Your task to perform on an android device: Open accessibility settings Image 0: 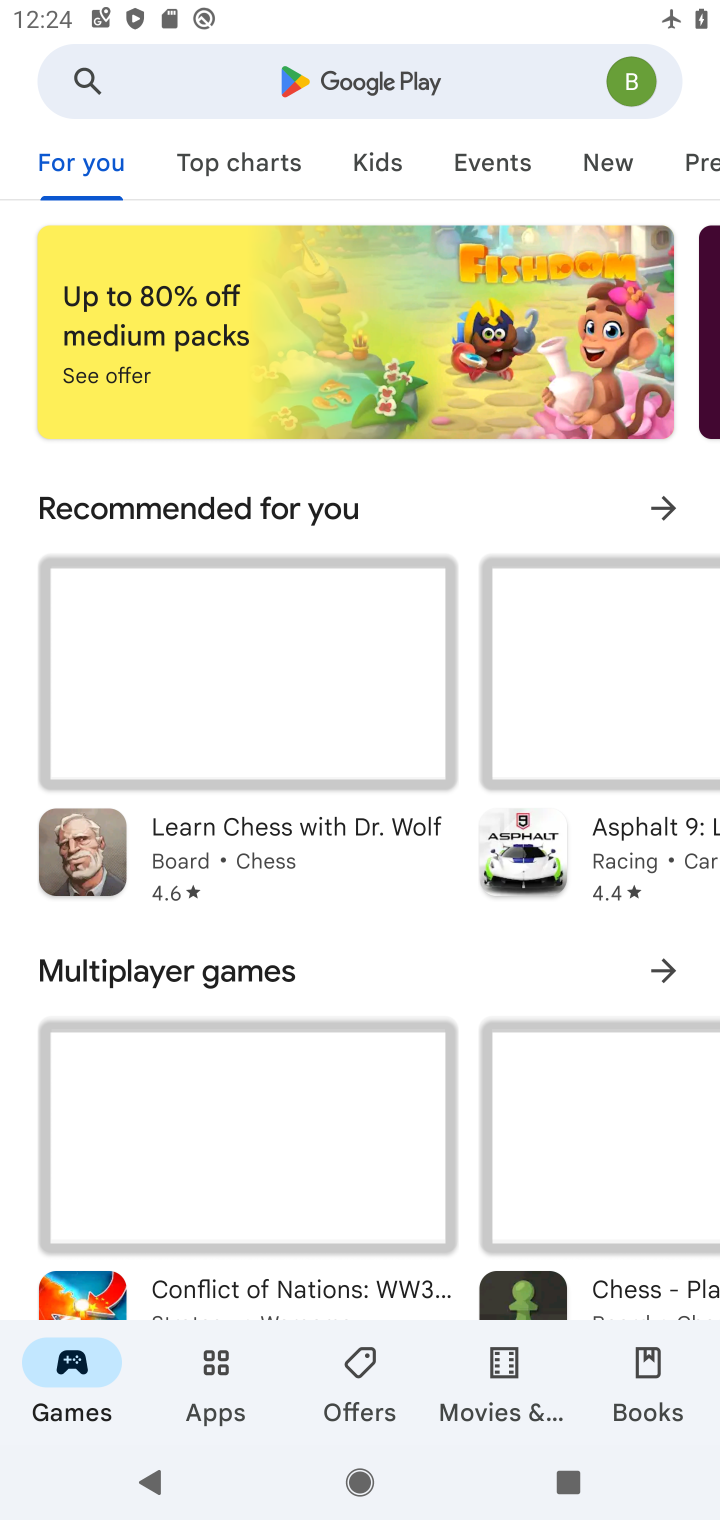
Step 0: press back button
Your task to perform on an android device: Open accessibility settings Image 1: 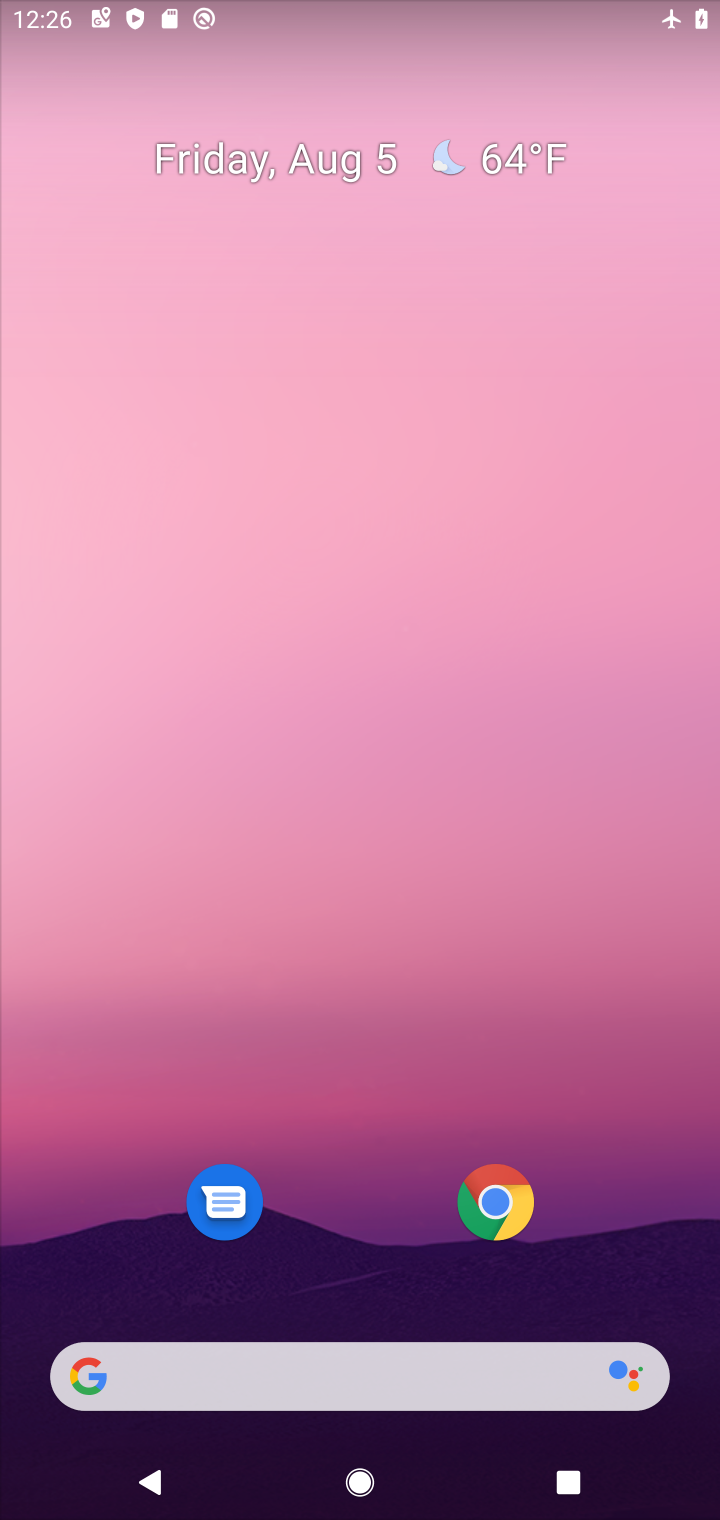
Step 1: drag from (373, 1118) to (413, 221)
Your task to perform on an android device: Open accessibility settings Image 2: 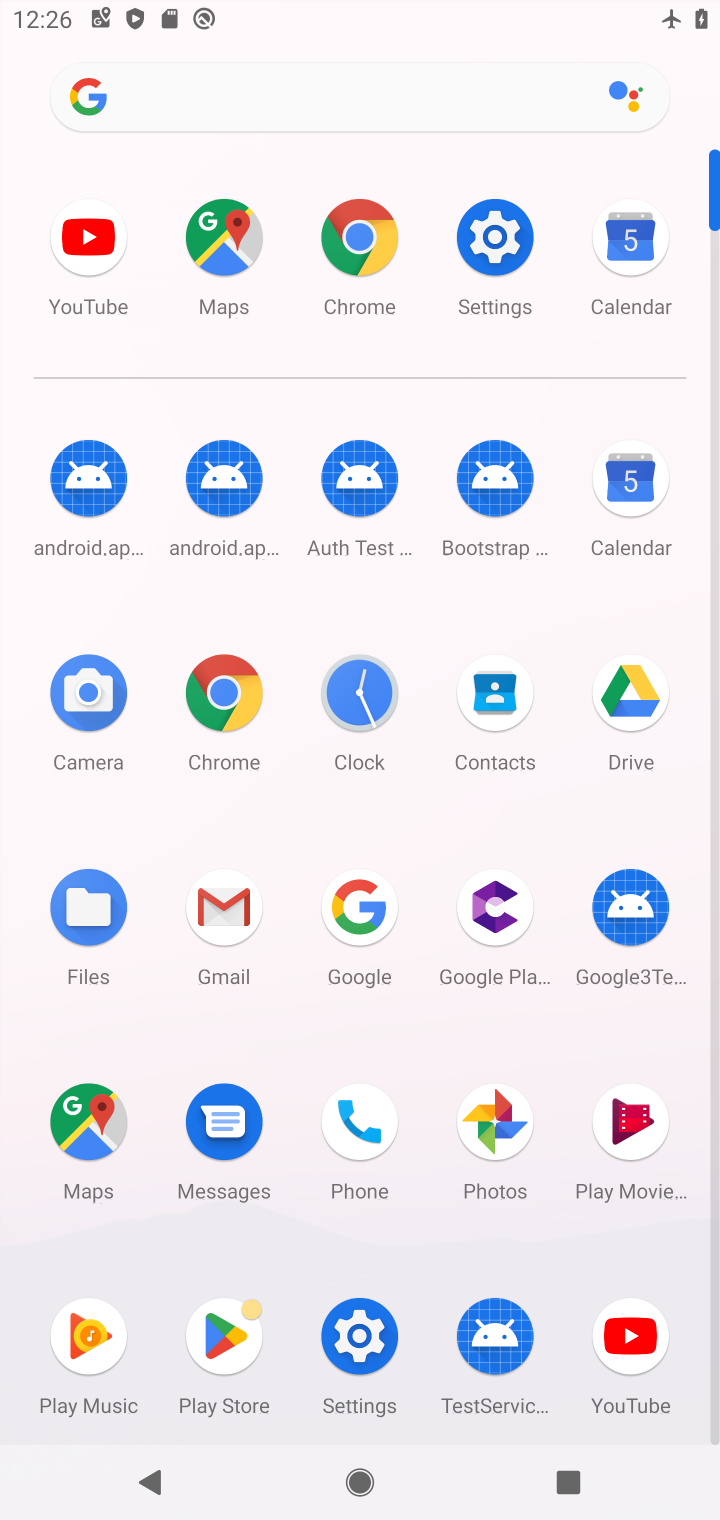
Step 2: click (481, 239)
Your task to perform on an android device: Open accessibility settings Image 3: 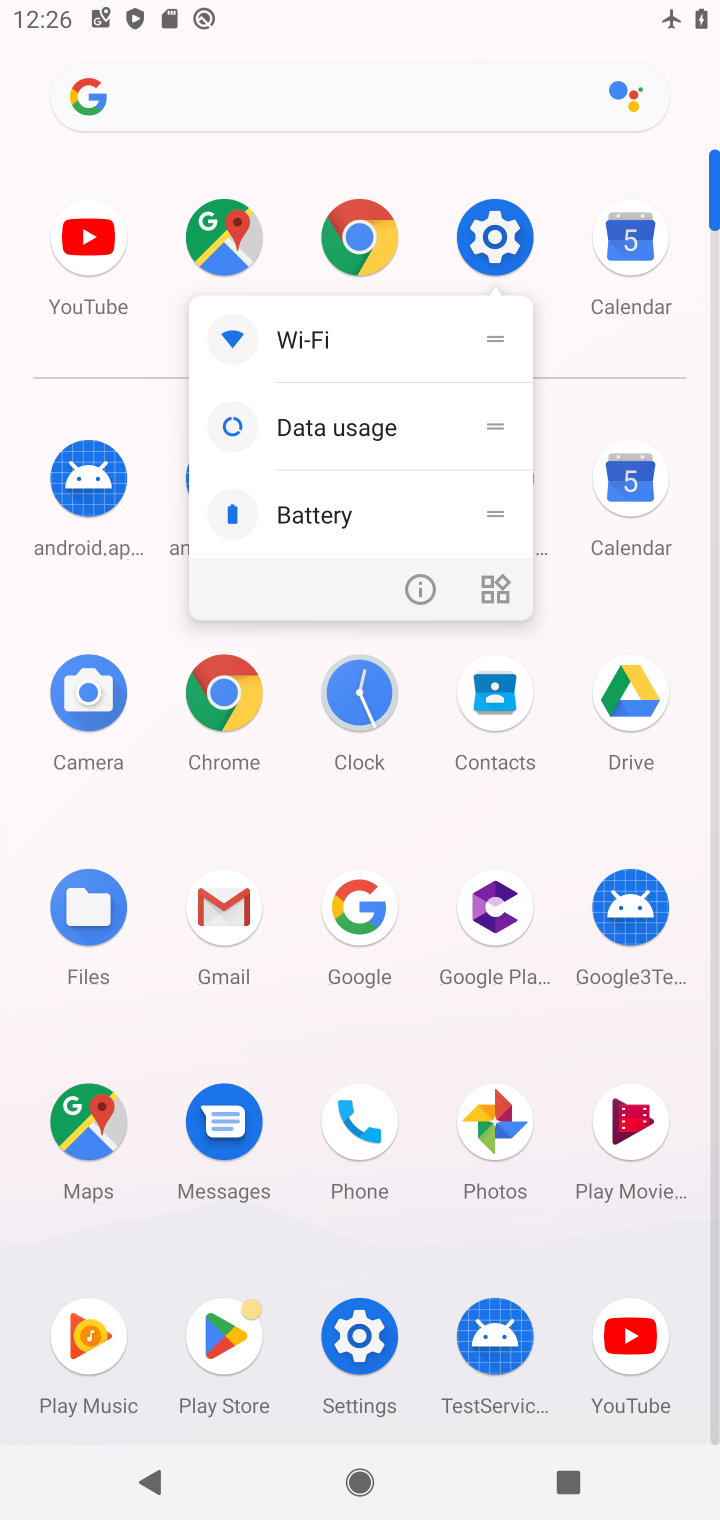
Step 3: click (508, 235)
Your task to perform on an android device: Open accessibility settings Image 4: 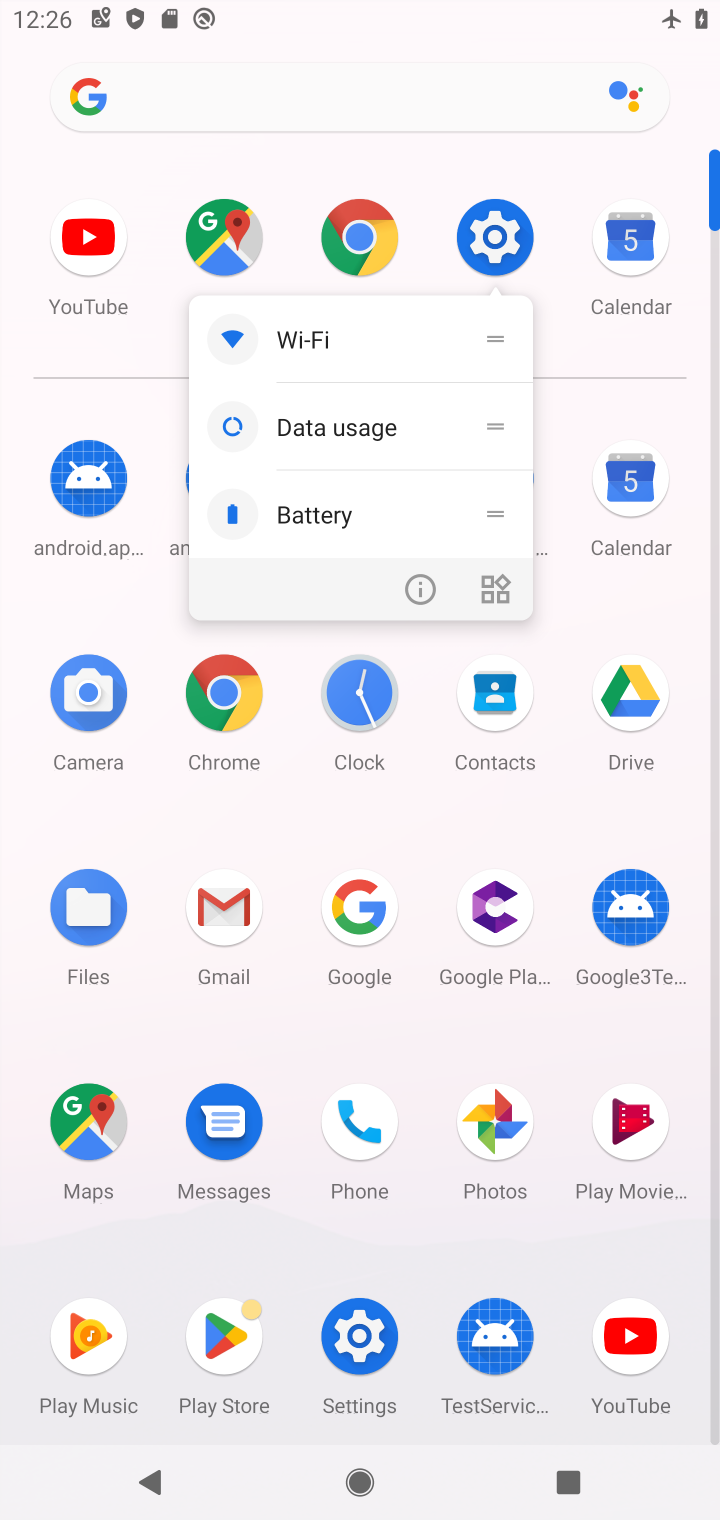
Step 4: click (476, 258)
Your task to perform on an android device: Open accessibility settings Image 5: 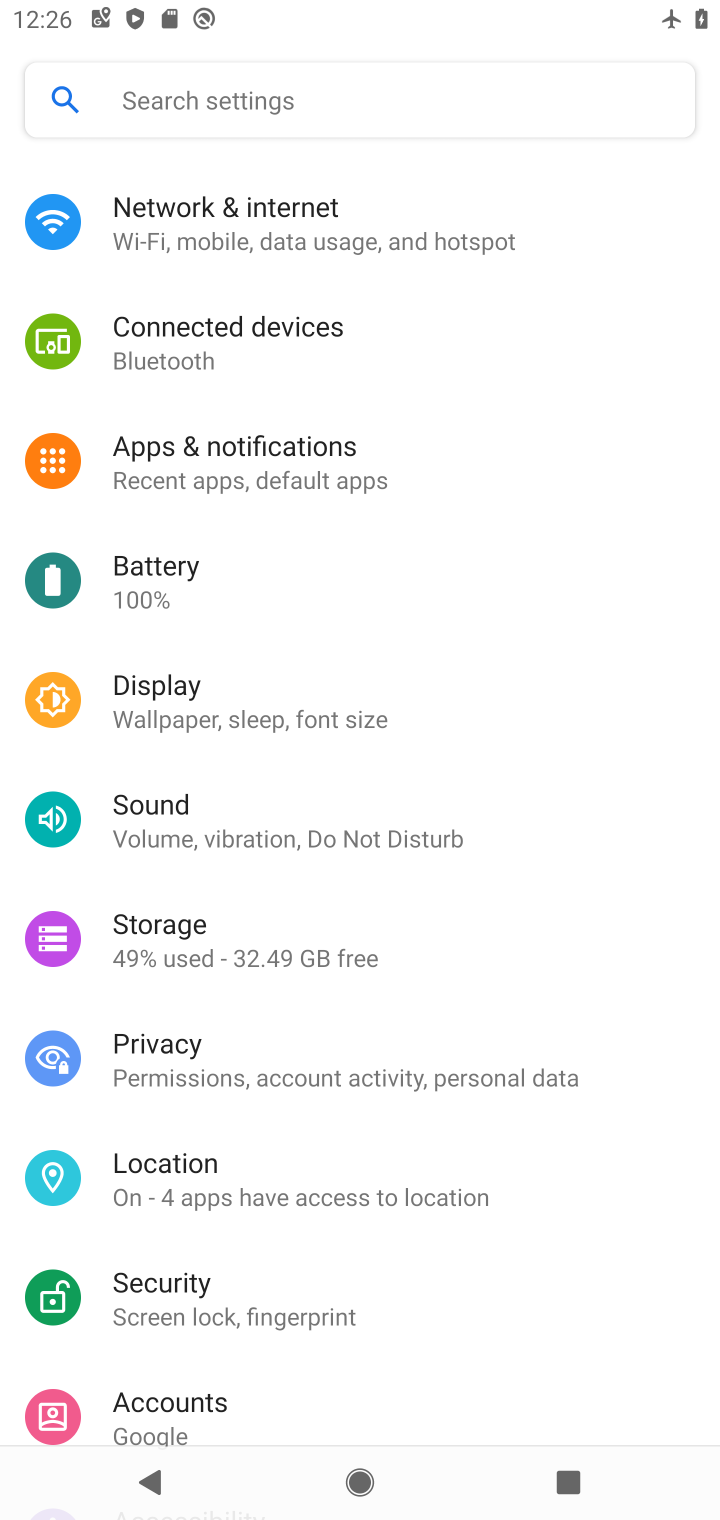
Step 5: drag from (287, 1379) to (541, 222)
Your task to perform on an android device: Open accessibility settings Image 6: 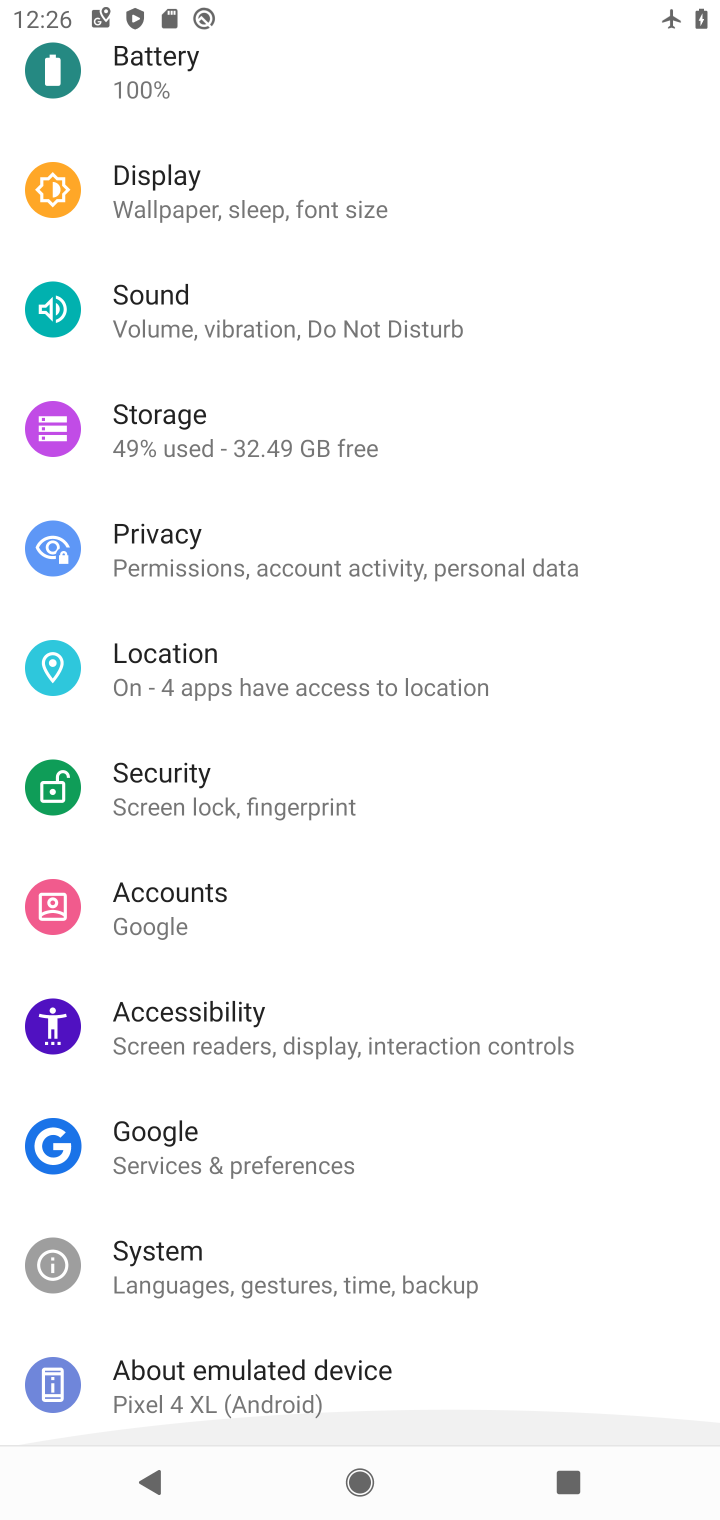
Step 6: click (170, 1026)
Your task to perform on an android device: Open accessibility settings Image 7: 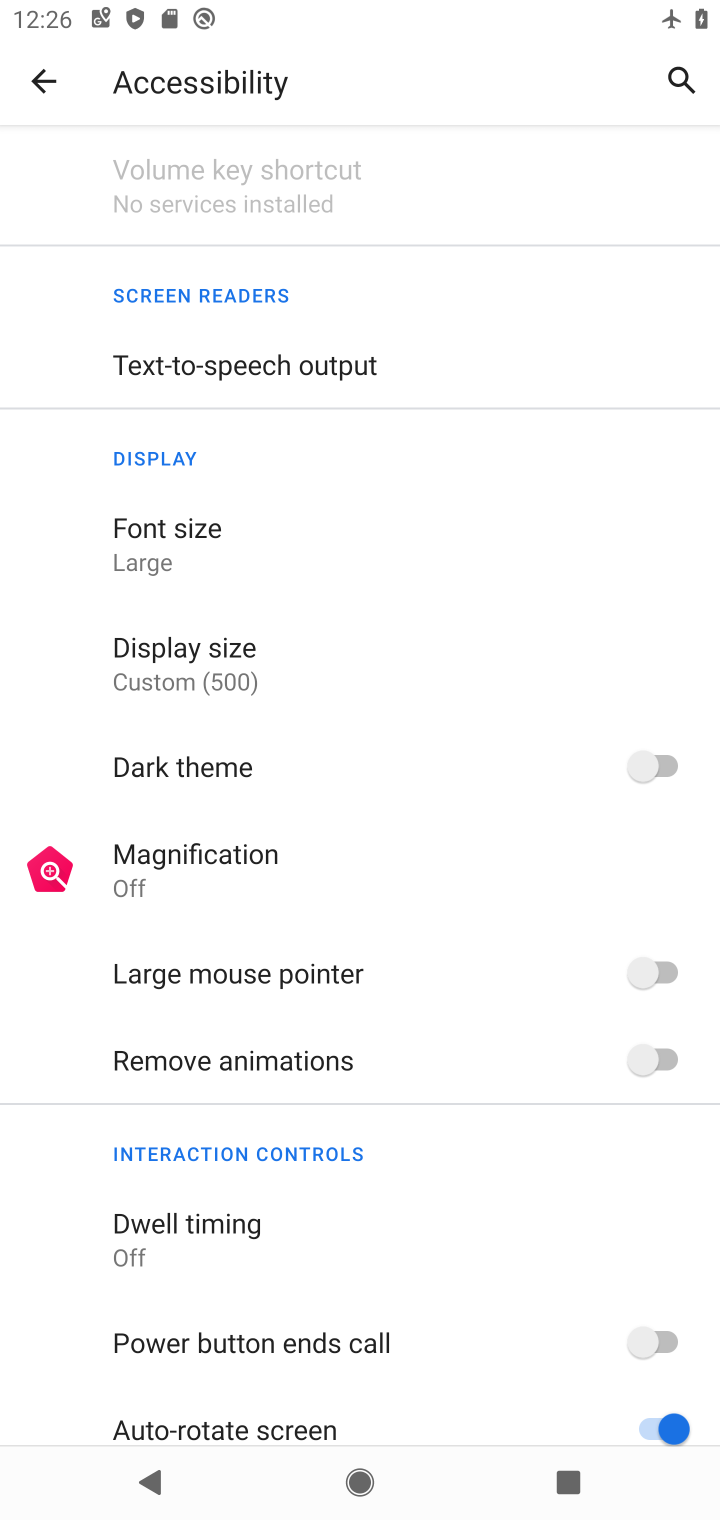
Step 7: task complete